Your task to perform on an android device: open the mobile data screen to see how much data has been used Image 0: 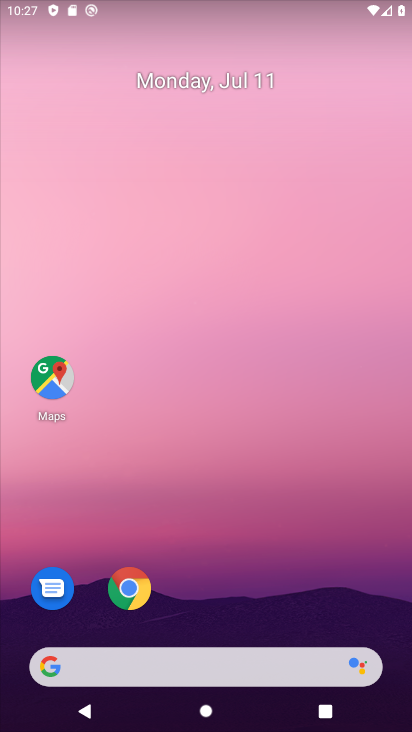
Step 0: drag from (238, 590) to (228, 162)
Your task to perform on an android device: open the mobile data screen to see how much data has been used Image 1: 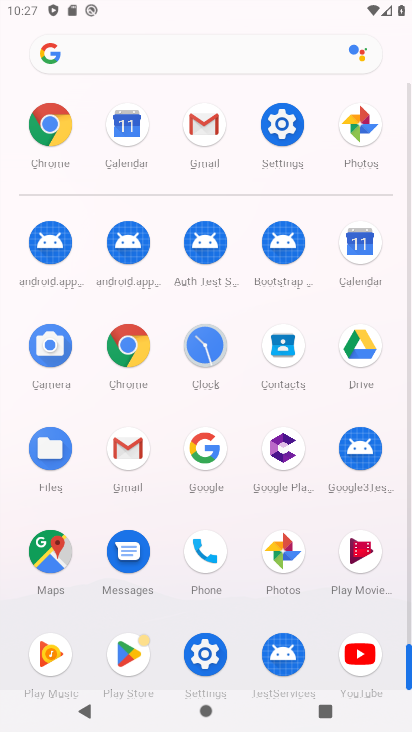
Step 1: click (278, 126)
Your task to perform on an android device: open the mobile data screen to see how much data has been used Image 2: 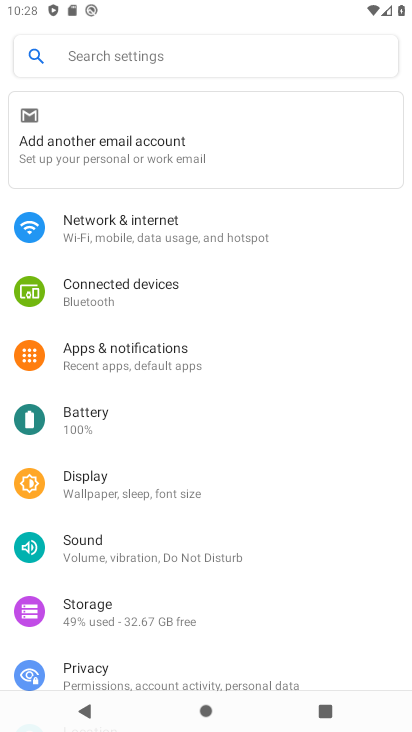
Step 2: click (131, 222)
Your task to perform on an android device: open the mobile data screen to see how much data has been used Image 3: 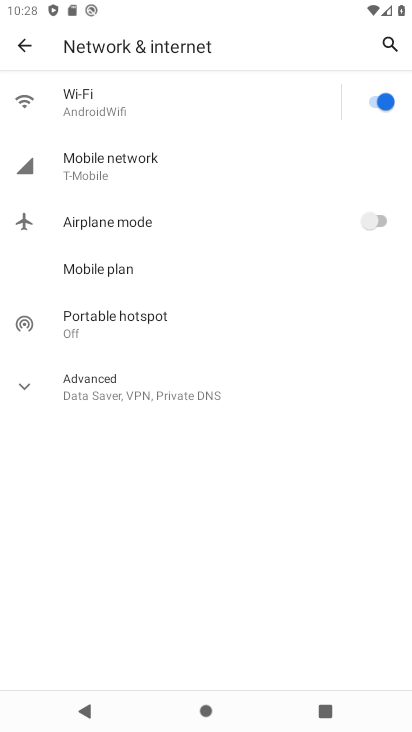
Step 3: click (139, 165)
Your task to perform on an android device: open the mobile data screen to see how much data has been used Image 4: 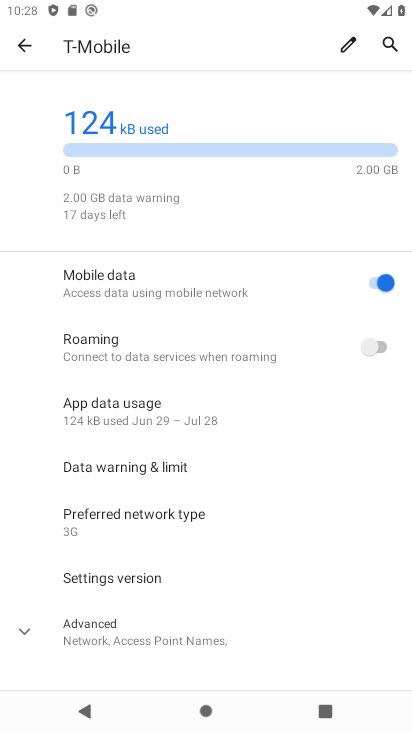
Step 4: task complete